Your task to perform on an android device: Open the map Image 0: 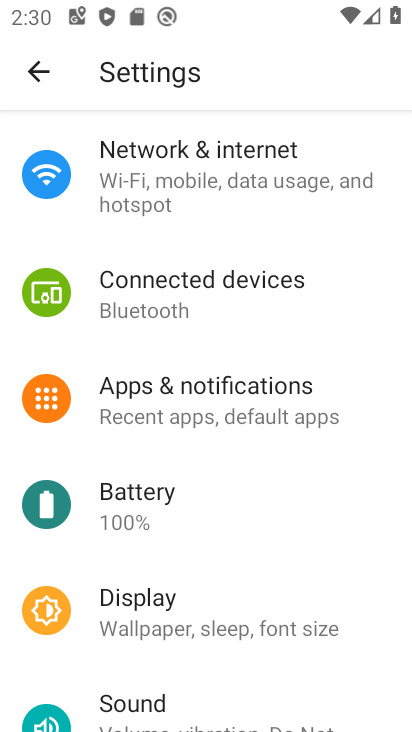
Step 0: press home button
Your task to perform on an android device: Open the map Image 1: 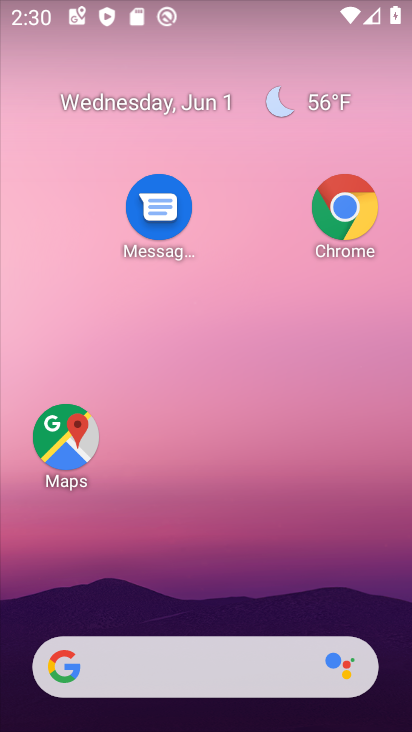
Step 1: drag from (208, 569) to (205, 459)
Your task to perform on an android device: Open the map Image 2: 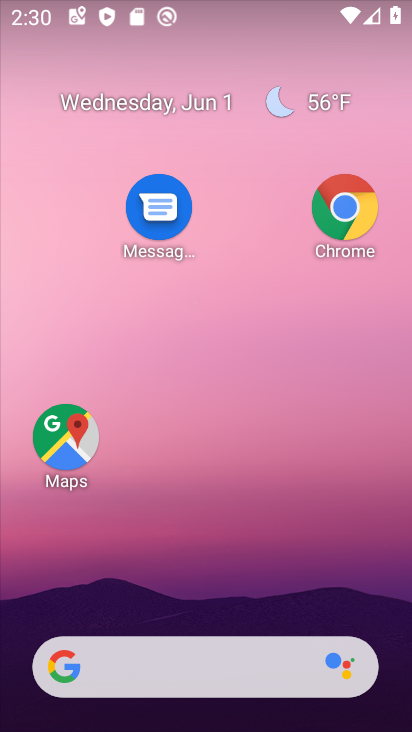
Step 2: click (64, 427)
Your task to perform on an android device: Open the map Image 3: 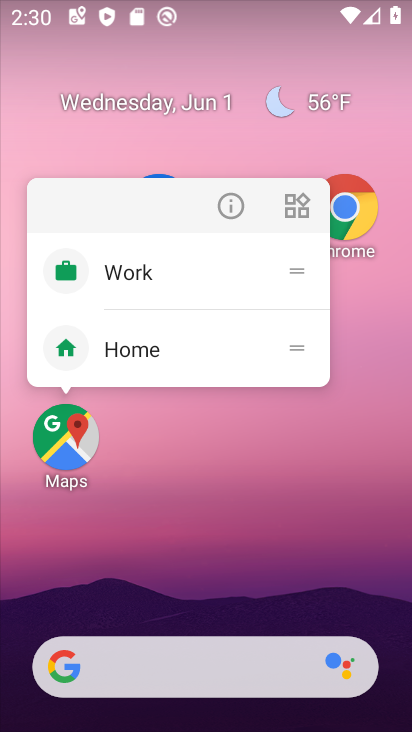
Step 3: click (137, 527)
Your task to perform on an android device: Open the map Image 4: 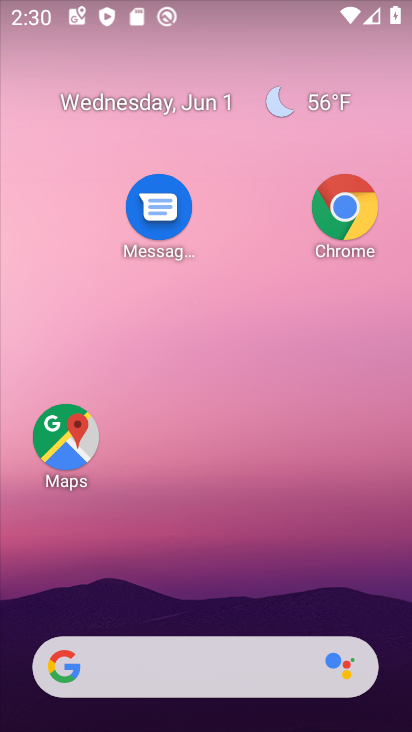
Step 4: drag from (249, 585) to (350, 37)
Your task to perform on an android device: Open the map Image 5: 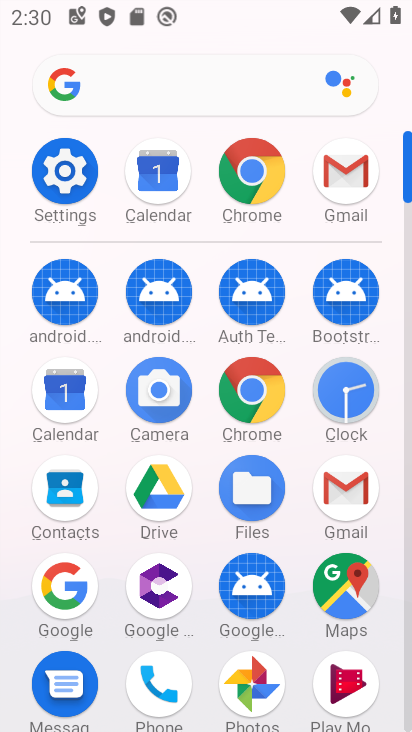
Step 5: drag from (294, 539) to (323, 4)
Your task to perform on an android device: Open the map Image 6: 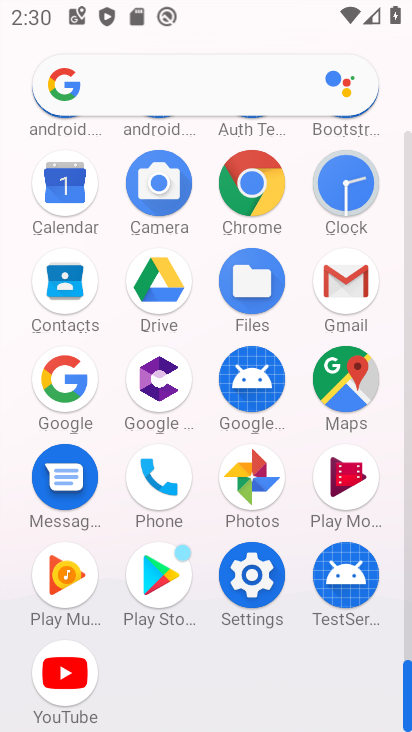
Step 6: click (337, 384)
Your task to perform on an android device: Open the map Image 7: 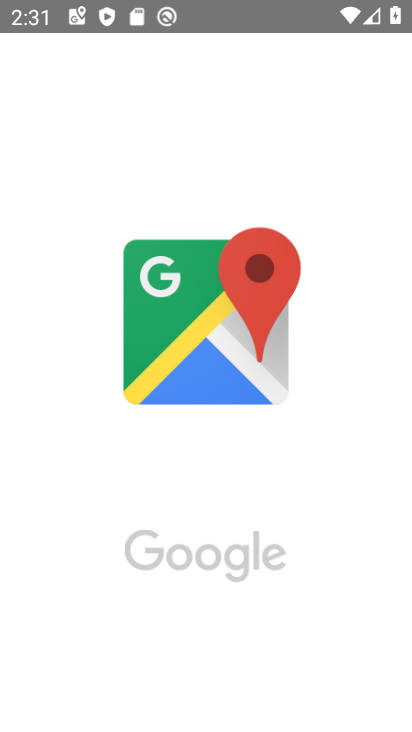
Step 7: task complete